Your task to perform on an android device: toggle javascript in the chrome app Image 0: 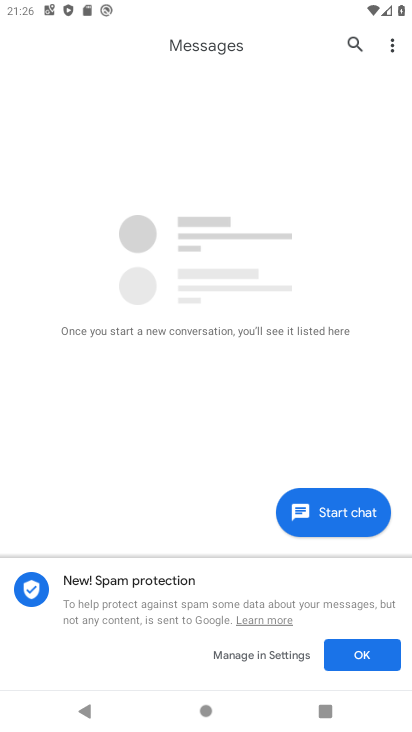
Step 0: press home button
Your task to perform on an android device: toggle javascript in the chrome app Image 1: 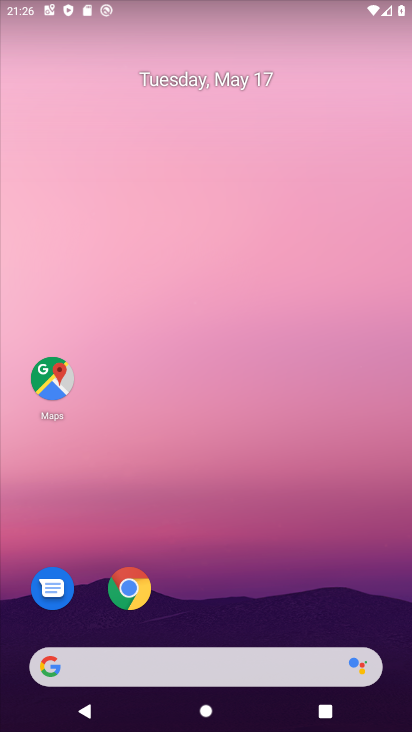
Step 1: click (136, 605)
Your task to perform on an android device: toggle javascript in the chrome app Image 2: 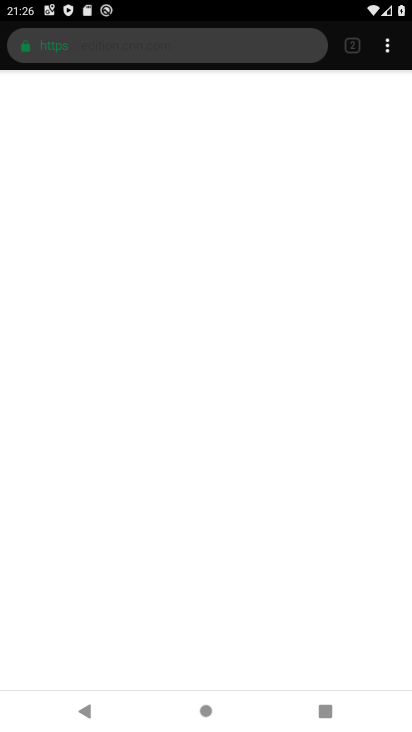
Step 2: click (389, 51)
Your task to perform on an android device: toggle javascript in the chrome app Image 3: 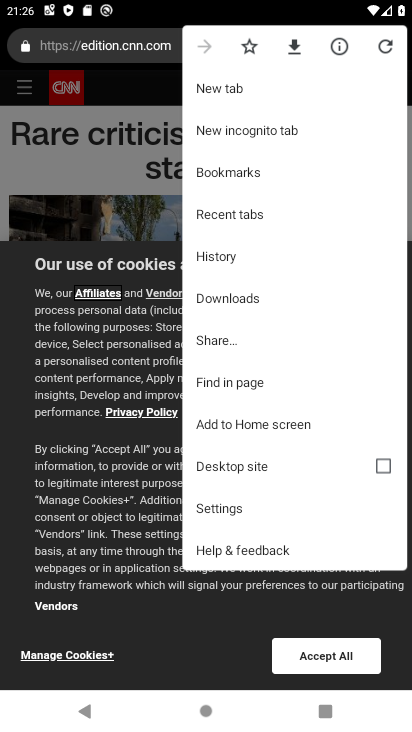
Step 3: click (236, 504)
Your task to perform on an android device: toggle javascript in the chrome app Image 4: 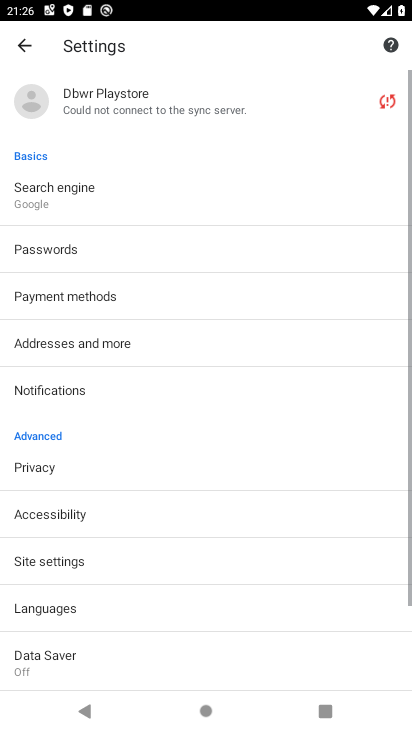
Step 4: drag from (236, 504) to (175, 227)
Your task to perform on an android device: toggle javascript in the chrome app Image 5: 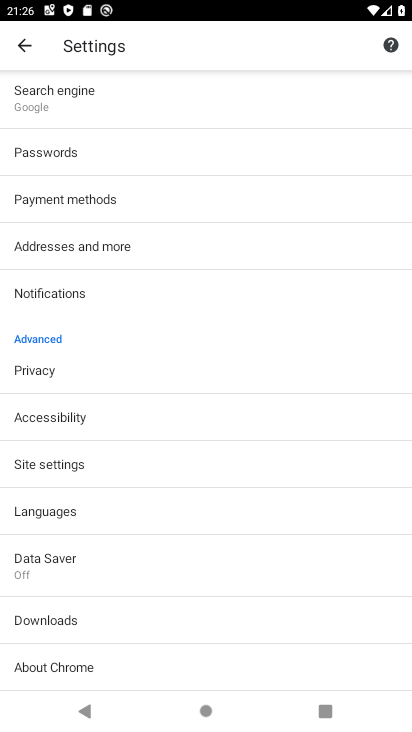
Step 5: click (52, 465)
Your task to perform on an android device: toggle javascript in the chrome app Image 6: 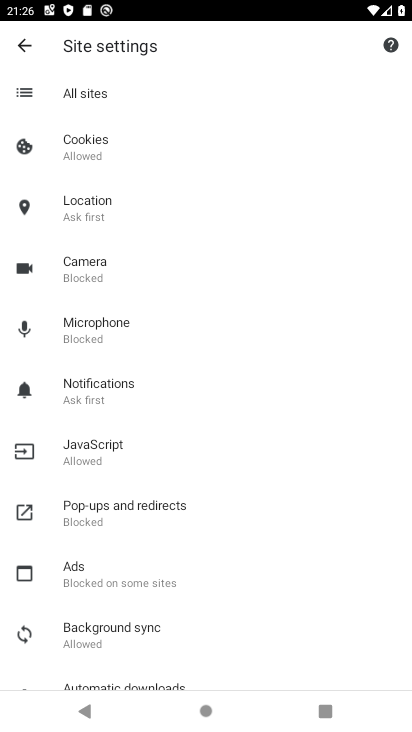
Step 6: click (75, 450)
Your task to perform on an android device: toggle javascript in the chrome app Image 7: 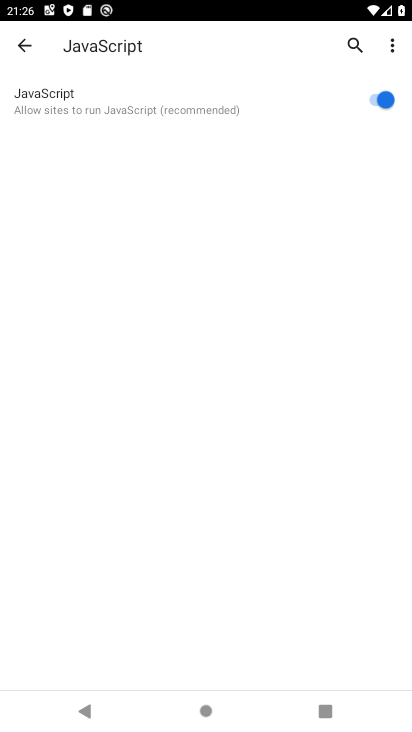
Step 7: click (385, 105)
Your task to perform on an android device: toggle javascript in the chrome app Image 8: 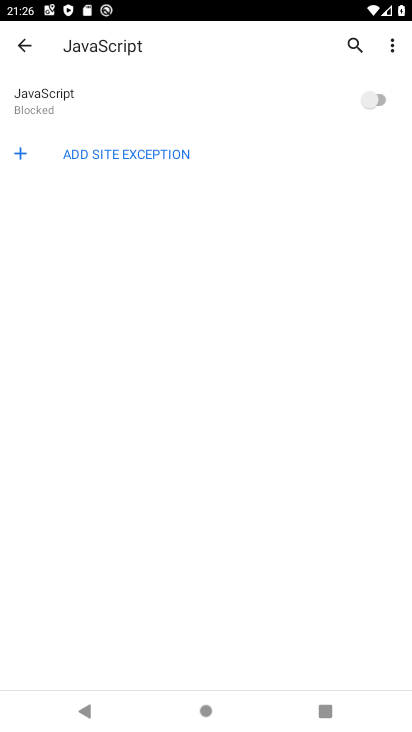
Step 8: task complete